Your task to perform on an android device: Play the last video I watched on Youtube Image 0: 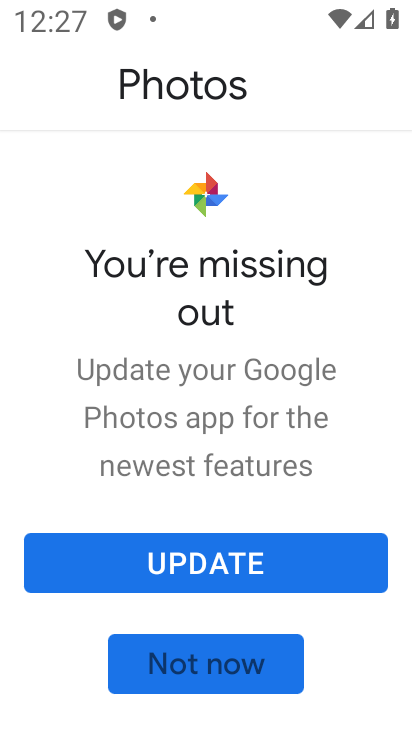
Step 0: press home button
Your task to perform on an android device: Play the last video I watched on Youtube Image 1: 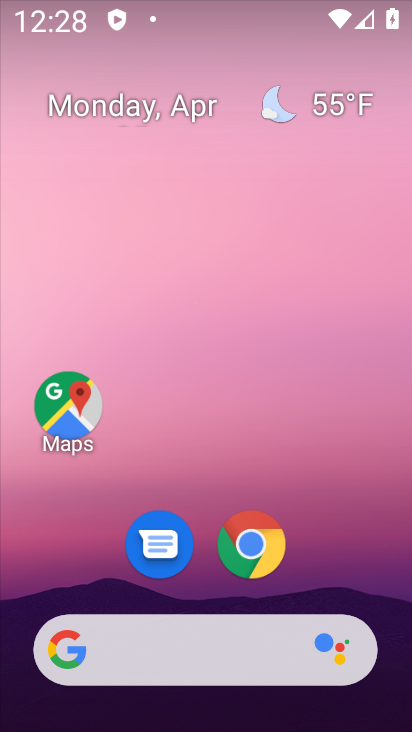
Step 1: drag from (341, 550) to (193, 152)
Your task to perform on an android device: Play the last video I watched on Youtube Image 2: 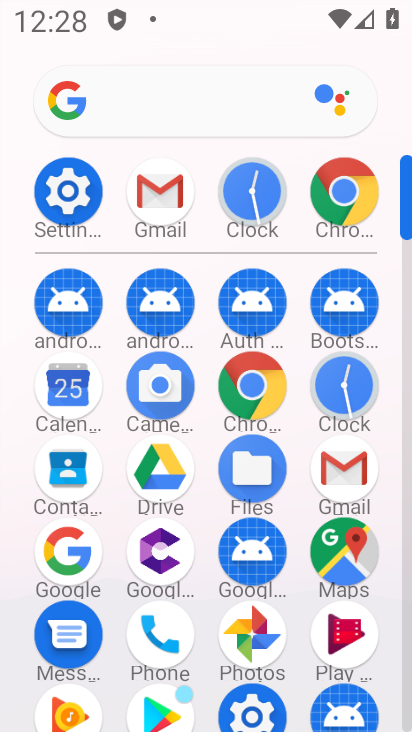
Step 2: drag from (209, 647) to (230, 186)
Your task to perform on an android device: Play the last video I watched on Youtube Image 3: 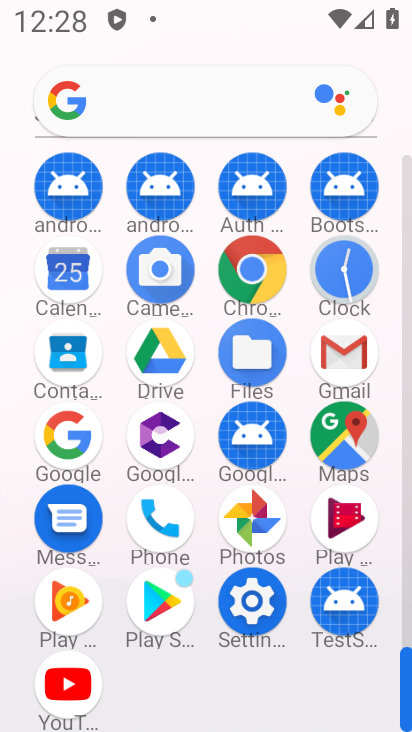
Step 3: click (70, 692)
Your task to perform on an android device: Play the last video I watched on Youtube Image 4: 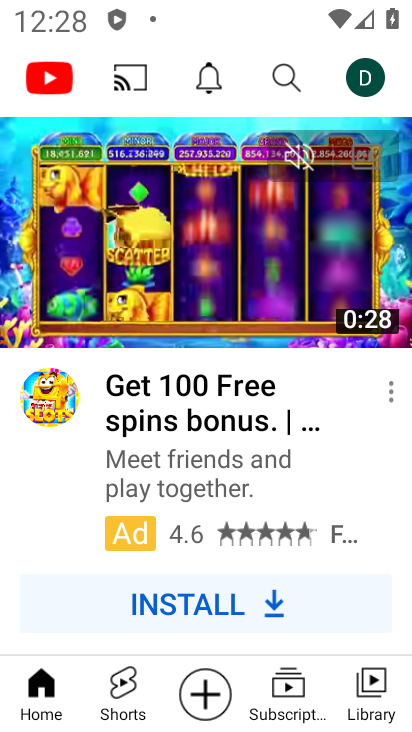
Step 4: click (384, 685)
Your task to perform on an android device: Play the last video I watched on Youtube Image 5: 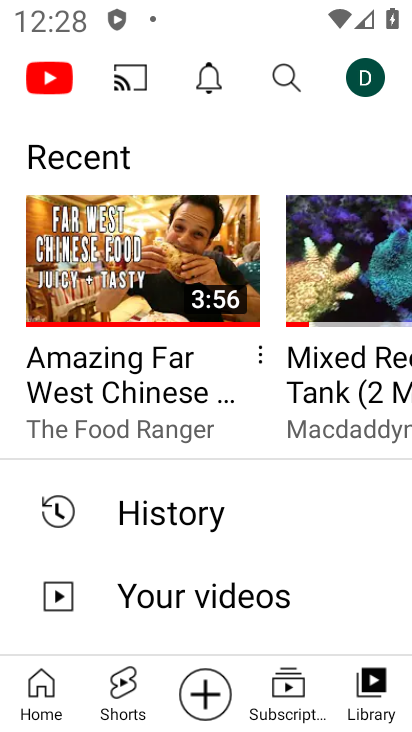
Step 5: click (201, 269)
Your task to perform on an android device: Play the last video I watched on Youtube Image 6: 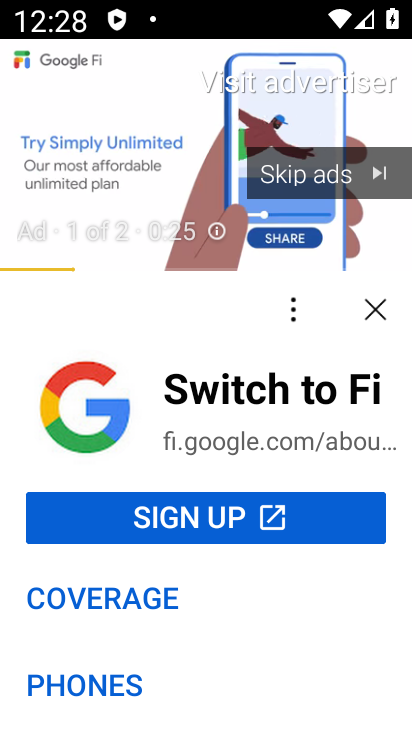
Step 6: click (323, 190)
Your task to perform on an android device: Play the last video I watched on Youtube Image 7: 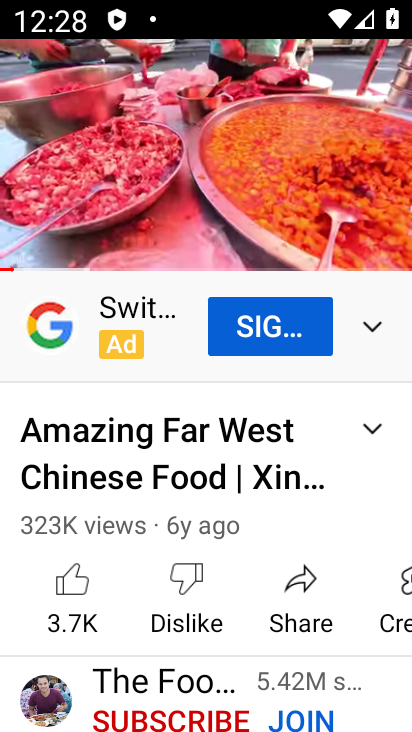
Step 7: click (241, 146)
Your task to perform on an android device: Play the last video I watched on Youtube Image 8: 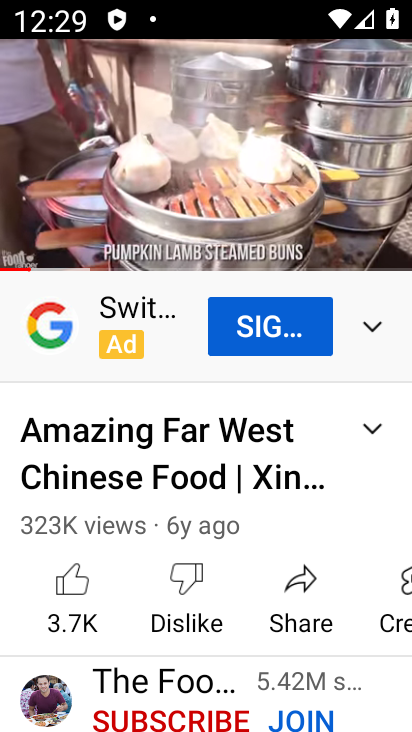
Step 8: click (187, 160)
Your task to perform on an android device: Play the last video I watched on Youtube Image 9: 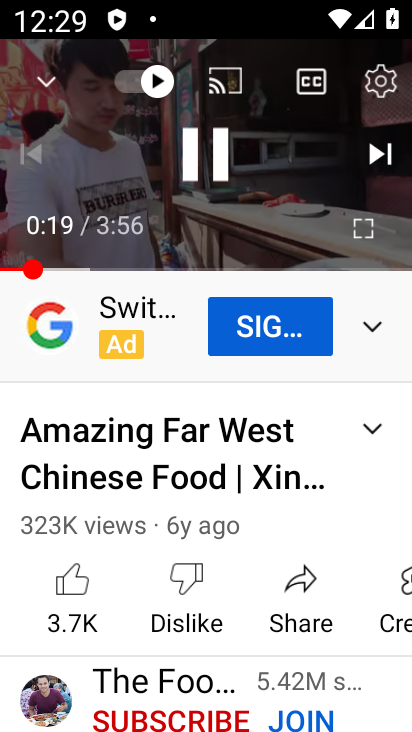
Step 9: click (195, 166)
Your task to perform on an android device: Play the last video I watched on Youtube Image 10: 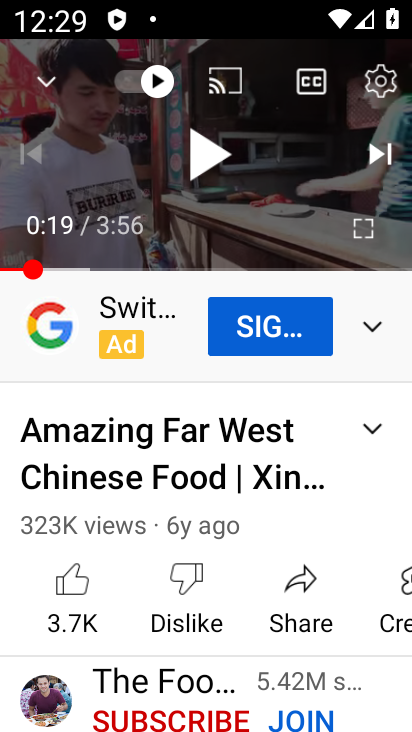
Step 10: task complete